Your task to perform on an android device: check storage Image 0: 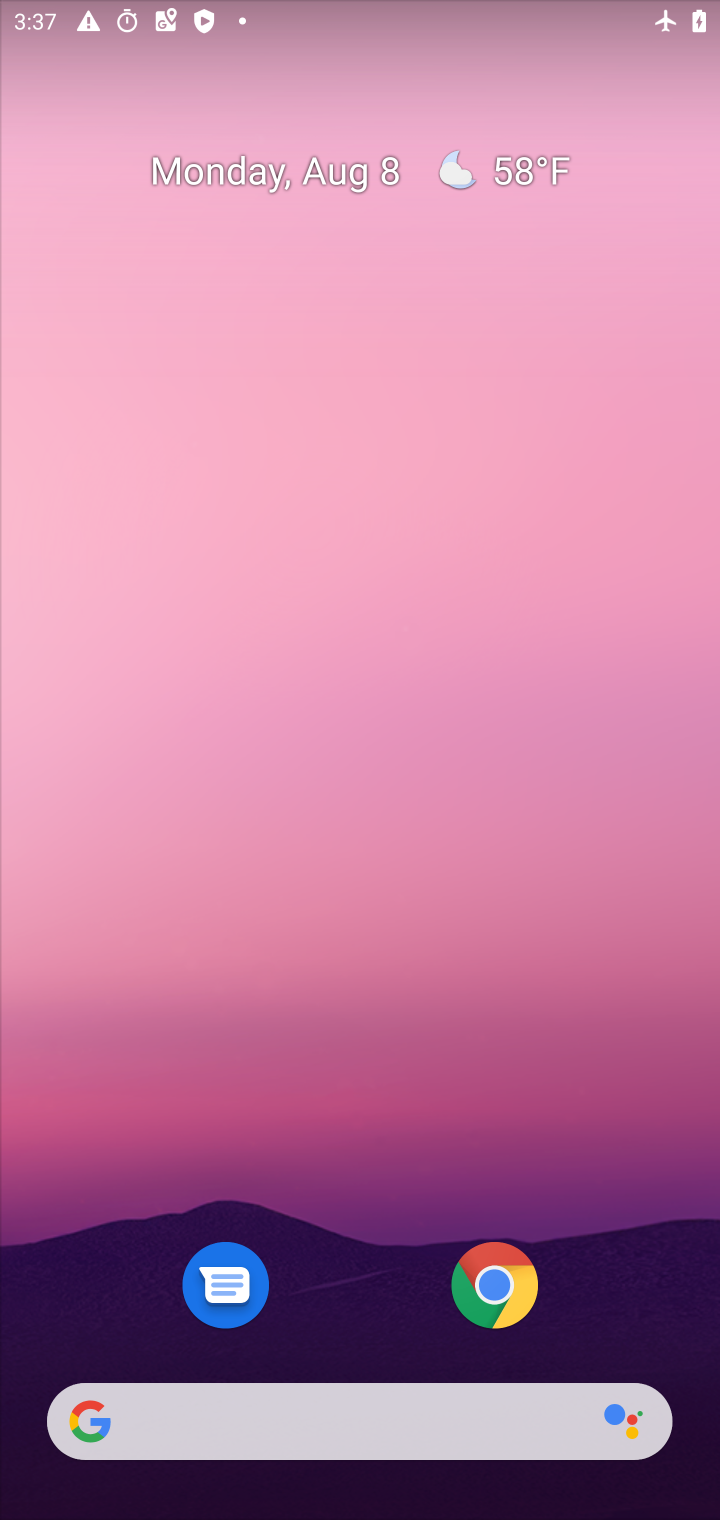
Step 0: drag from (398, 1133) to (412, 148)
Your task to perform on an android device: check storage Image 1: 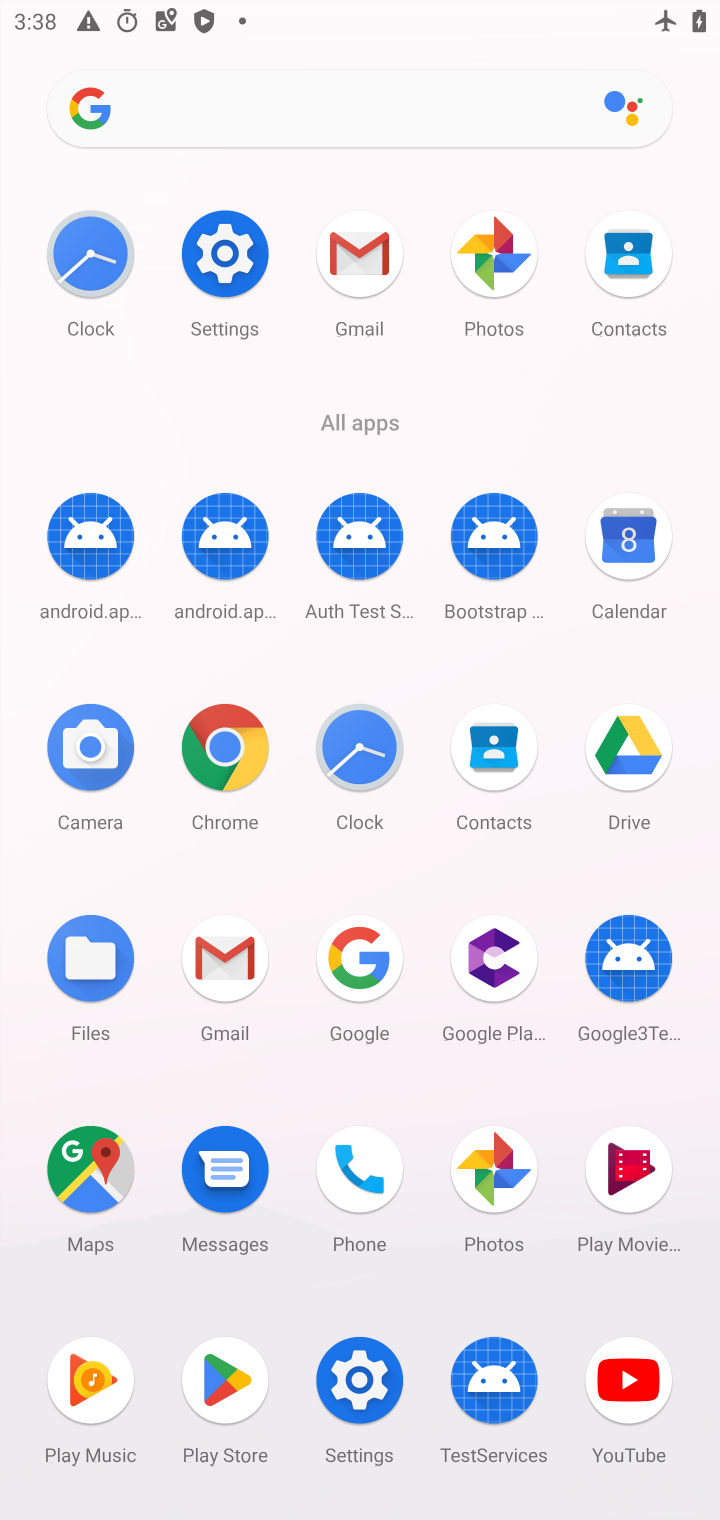
Step 1: click (188, 210)
Your task to perform on an android device: check storage Image 2: 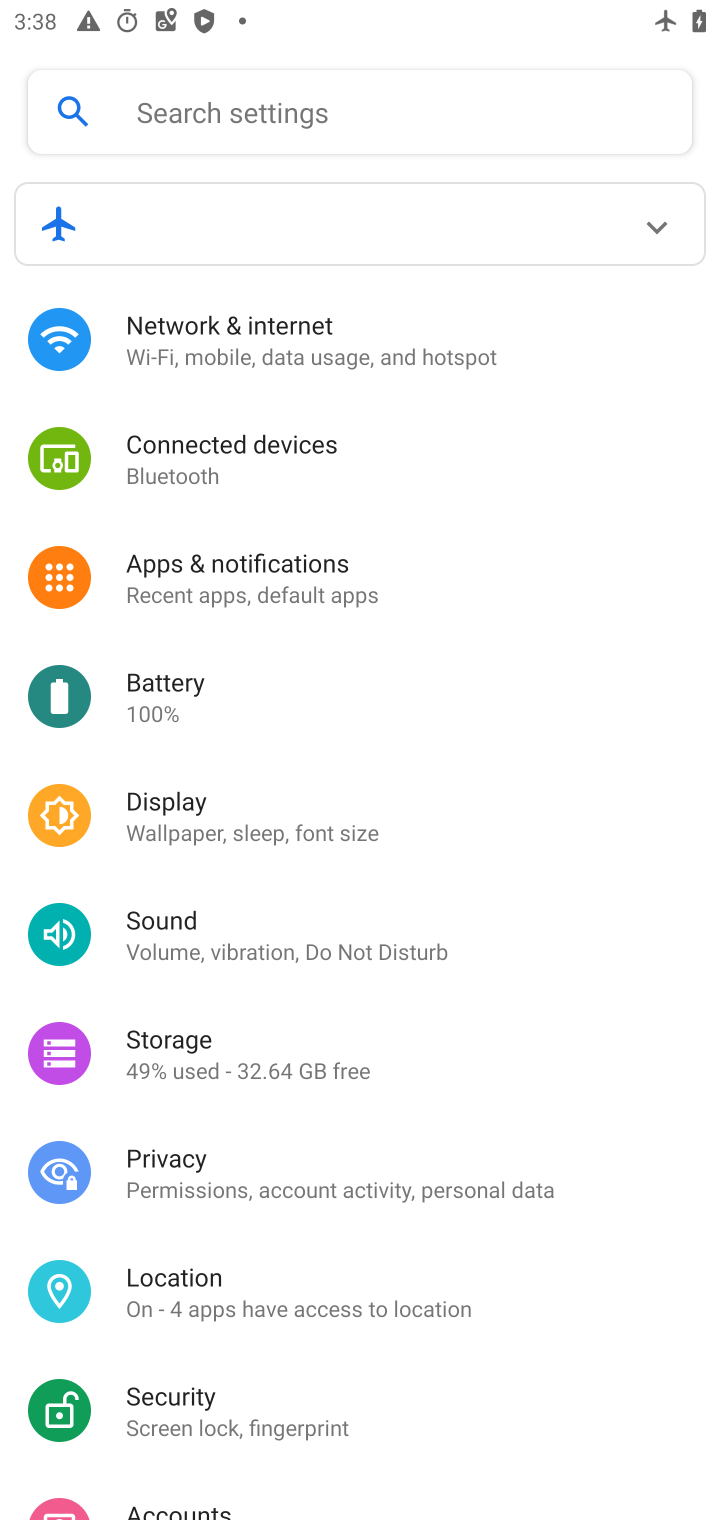
Step 2: click (277, 1057)
Your task to perform on an android device: check storage Image 3: 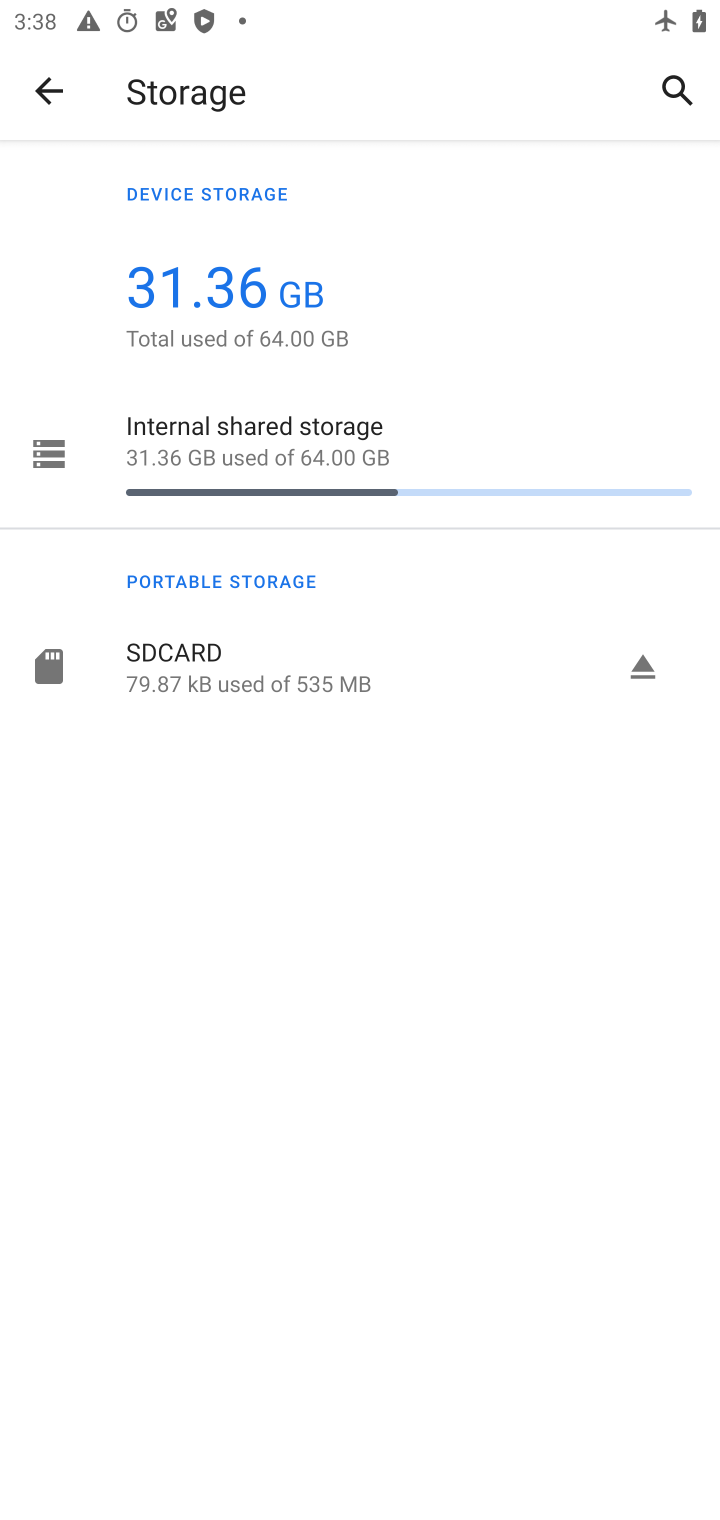
Step 3: task complete